Your task to perform on an android device: Go to Maps Image 0: 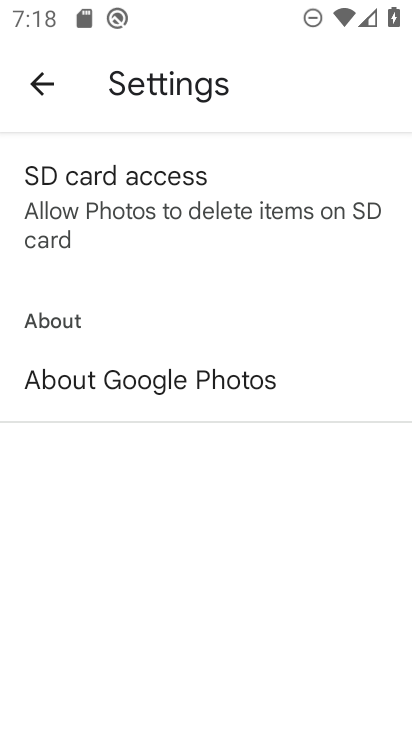
Step 0: press home button
Your task to perform on an android device: Go to Maps Image 1: 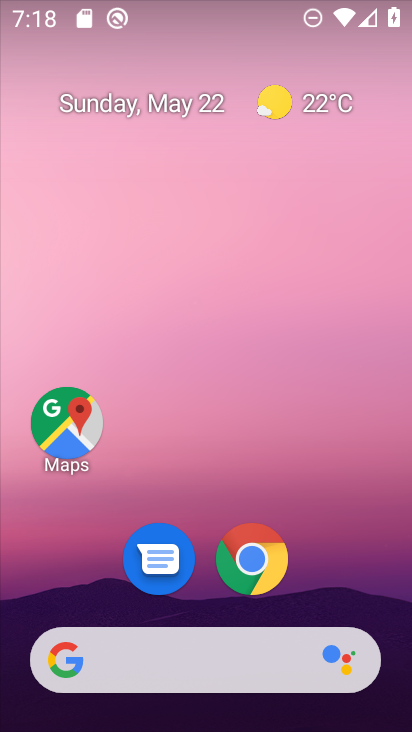
Step 1: drag from (257, 713) to (181, 148)
Your task to perform on an android device: Go to Maps Image 2: 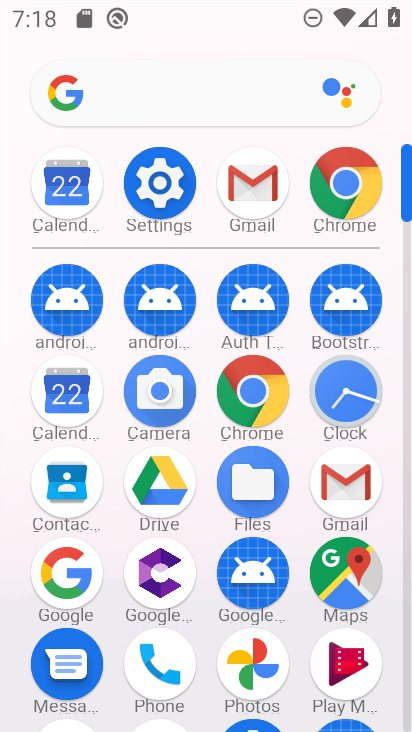
Step 2: click (326, 574)
Your task to perform on an android device: Go to Maps Image 3: 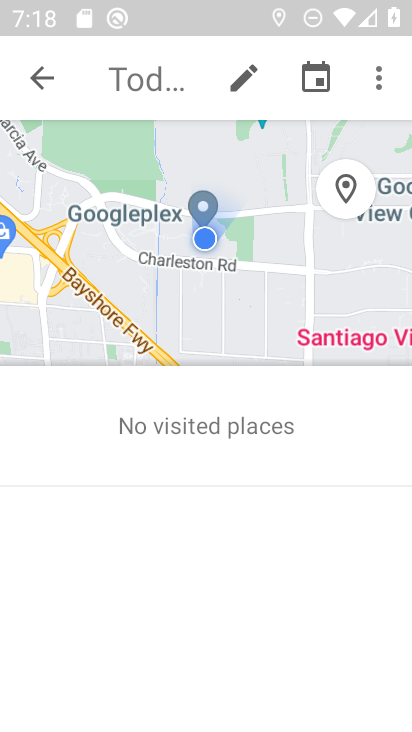
Step 3: click (48, 75)
Your task to perform on an android device: Go to Maps Image 4: 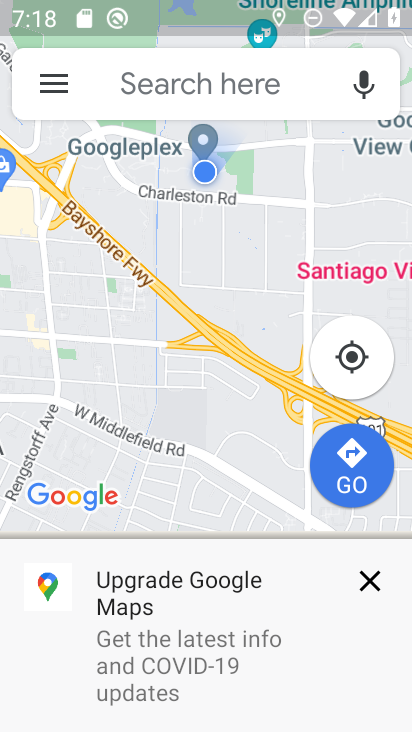
Step 4: click (380, 579)
Your task to perform on an android device: Go to Maps Image 5: 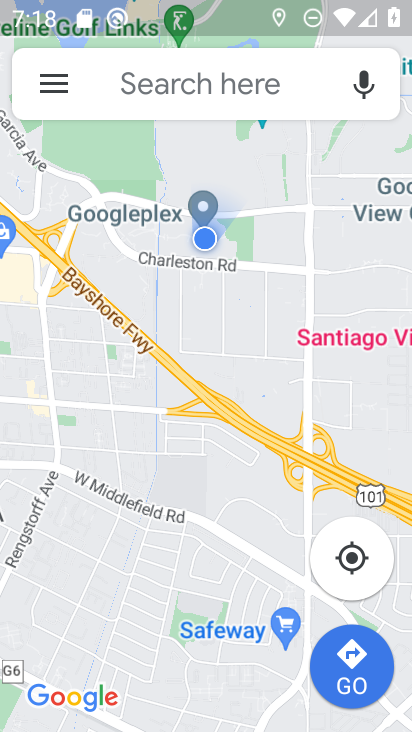
Step 5: click (358, 544)
Your task to perform on an android device: Go to Maps Image 6: 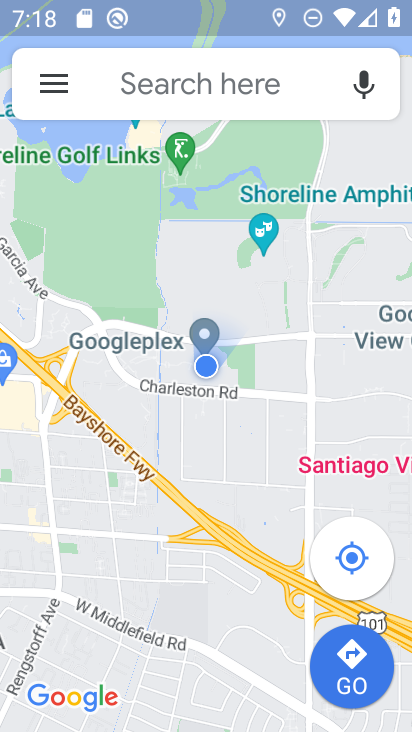
Step 6: task complete